Your task to perform on an android device: Search for seafood restaurants on Google Maps Image 0: 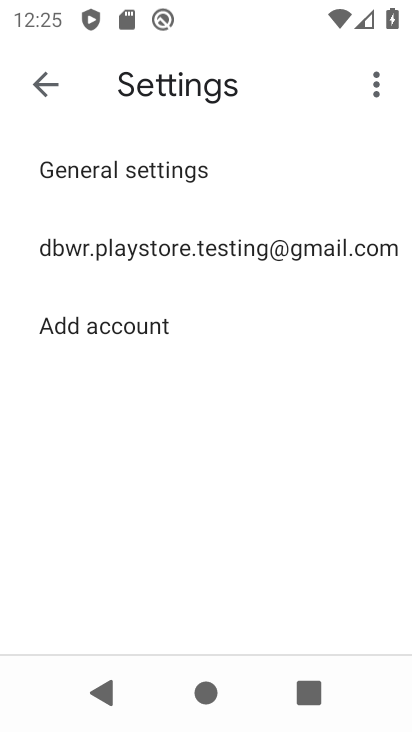
Step 0: press home button
Your task to perform on an android device: Search for seafood restaurants on Google Maps Image 1: 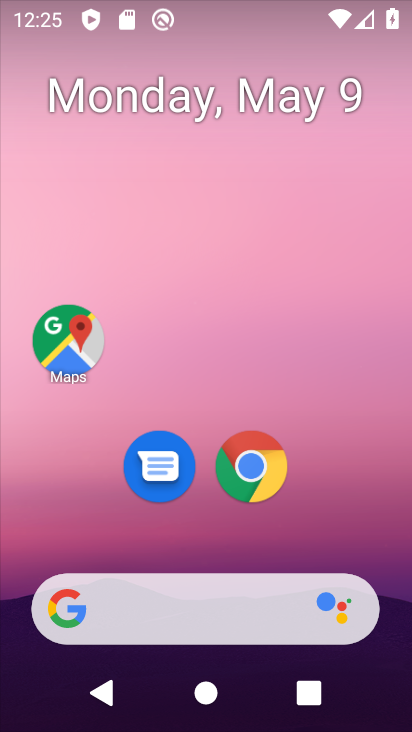
Step 1: click (93, 330)
Your task to perform on an android device: Search for seafood restaurants on Google Maps Image 2: 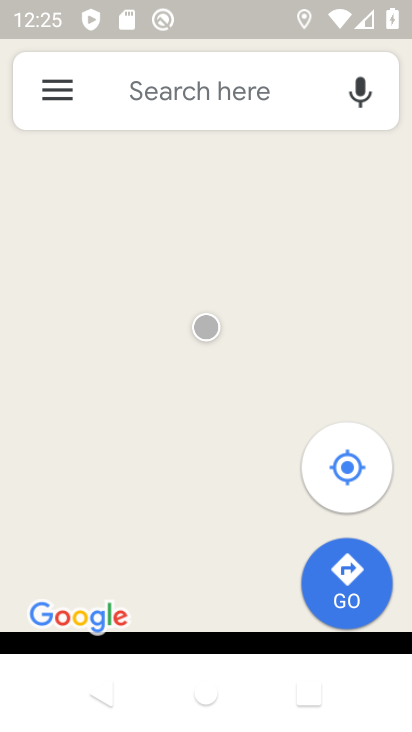
Step 2: click (134, 86)
Your task to perform on an android device: Search for seafood restaurants on Google Maps Image 3: 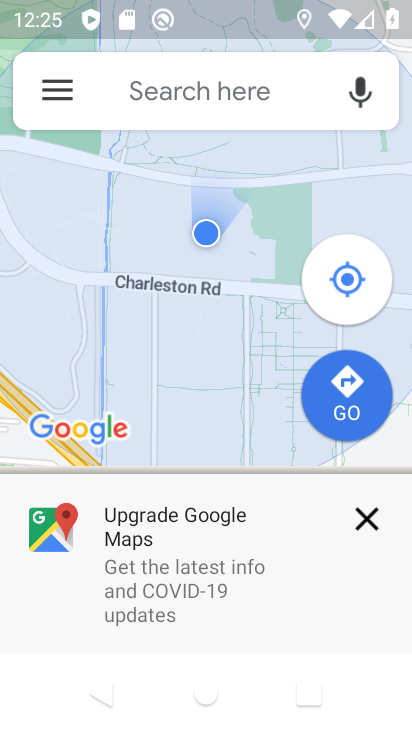
Step 3: click (134, 86)
Your task to perform on an android device: Search for seafood restaurants on Google Maps Image 4: 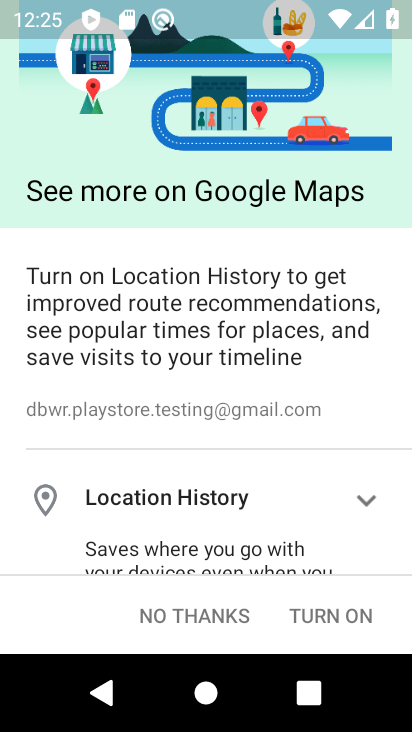
Step 4: click (204, 612)
Your task to perform on an android device: Search for seafood restaurants on Google Maps Image 5: 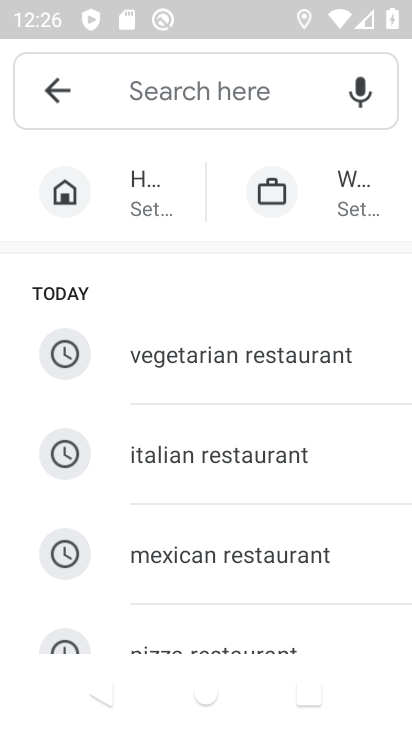
Step 5: drag from (244, 596) to (222, 236)
Your task to perform on an android device: Search for seafood restaurants on Google Maps Image 6: 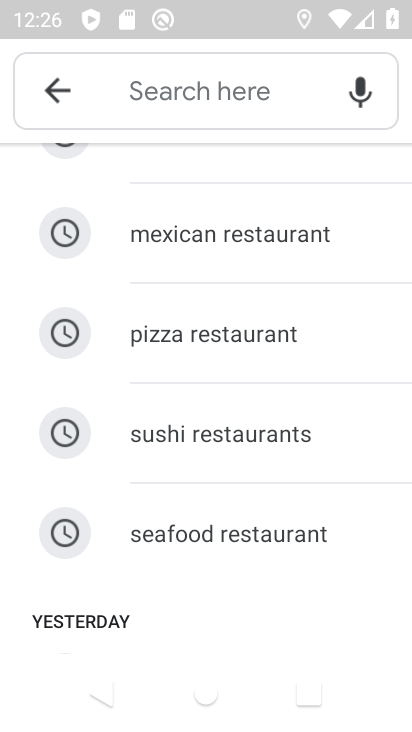
Step 6: click (281, 535)
Your task to perform on an android device: Search for seafood restaurants on Google Maps Image 7: 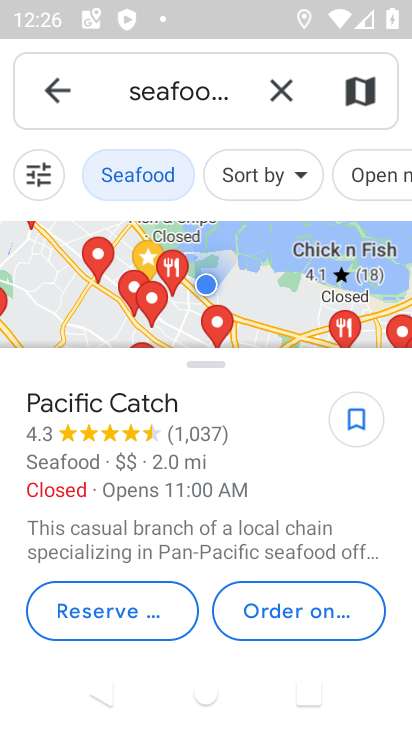
Step 7: task complete